Your task to perform on an android device: find photos in the google photos app Image 0: 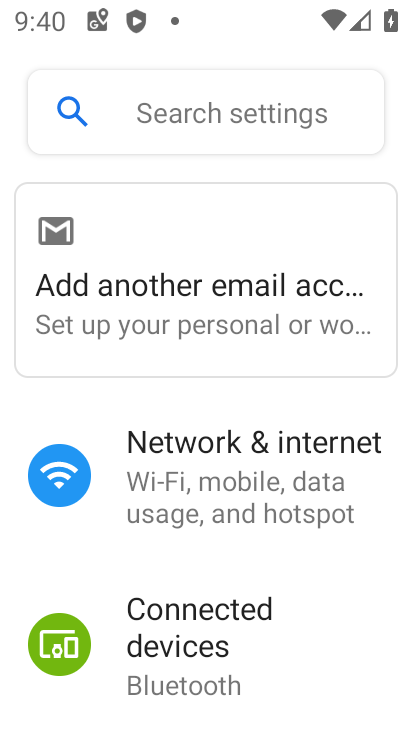
Step 0: press home button
Your task to perform on an android device: find photos in the google photos app Image 1: 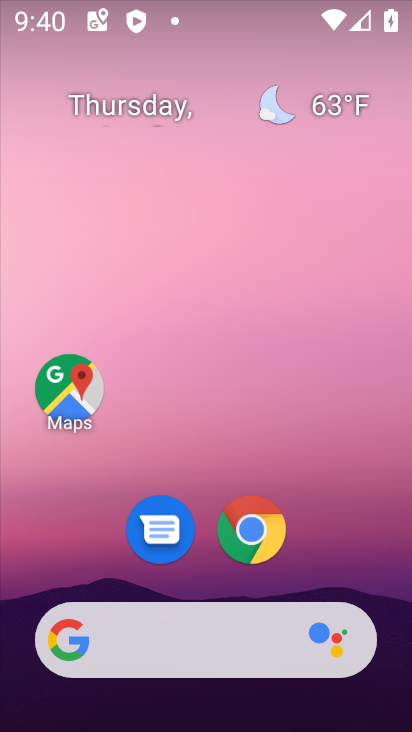
Step 1: drag from (386, 441) to (387, 145)
Your task to perform on an android device: find photos in the google photos app Image 2: 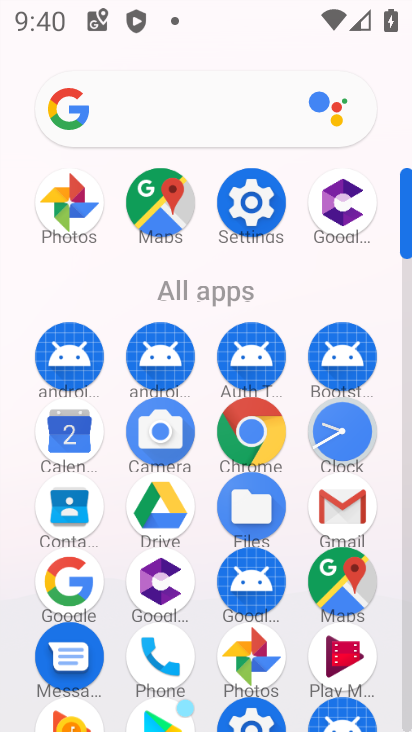
Step 2: click (48, 211)
Your task to perform on an android device: find photos in the google photos app Image 3: 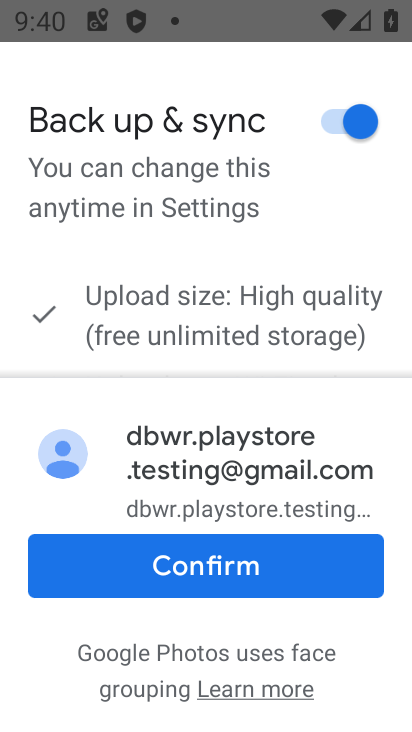
Step 3: click (255, 556)
Your task to perform on an android device: find photos in the google photos app Image 4: 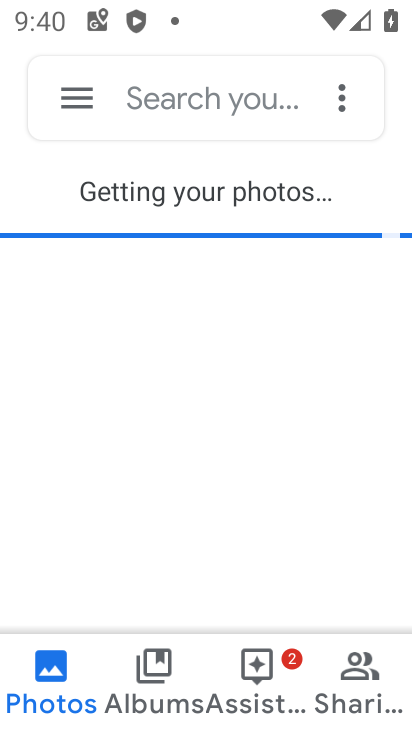
Step 4: click (80, 674)
Your task to perform on an android device: find photos in the google photos app Image 5: 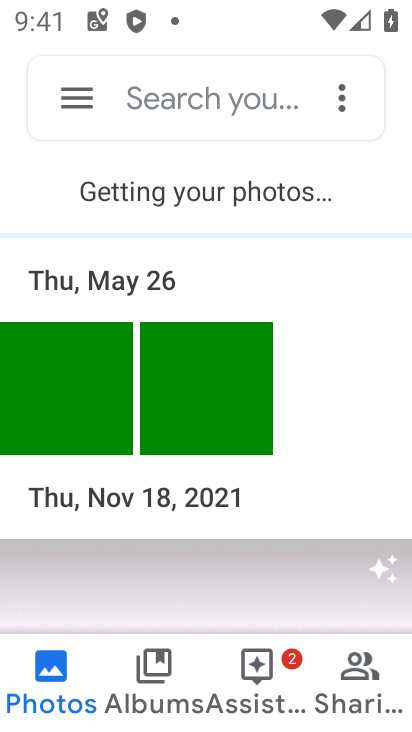
Step 5: task complete